Your task to perform on an android device: set default search engine in the chrome app Image 0: 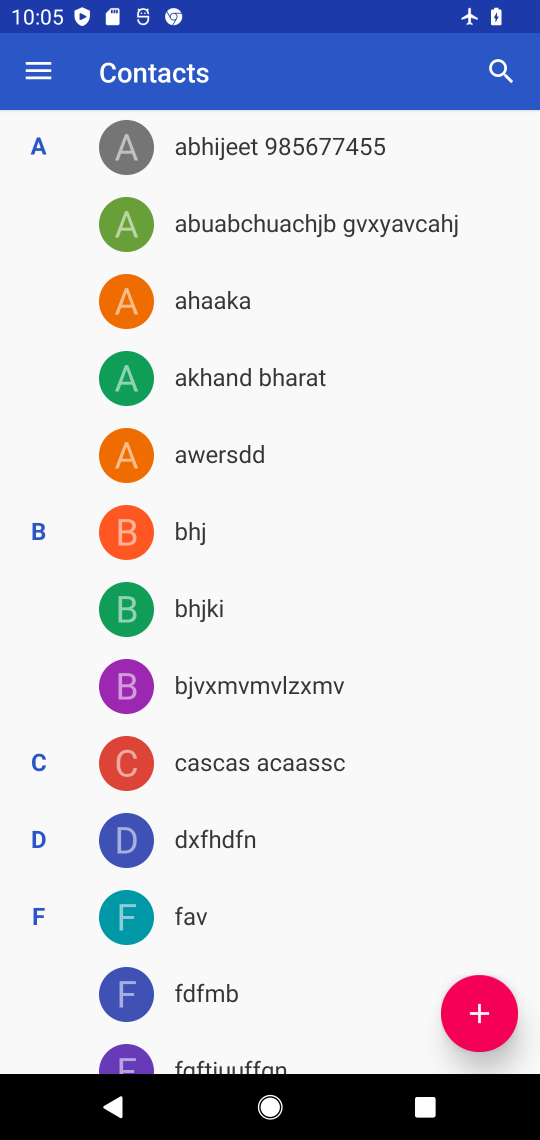
Step 0: press home button
Your task to perform on an android device: set default search engine in the chrome app Image 1: 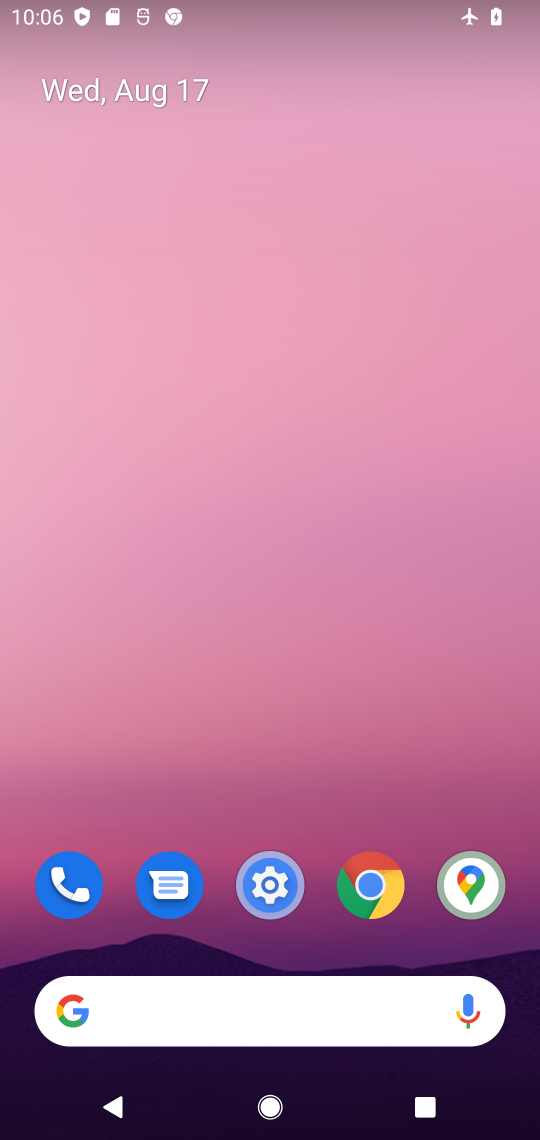
Step 1: click (370, 886)
Your task to perform on an android device: set default search engine in the chrome app Image 2: 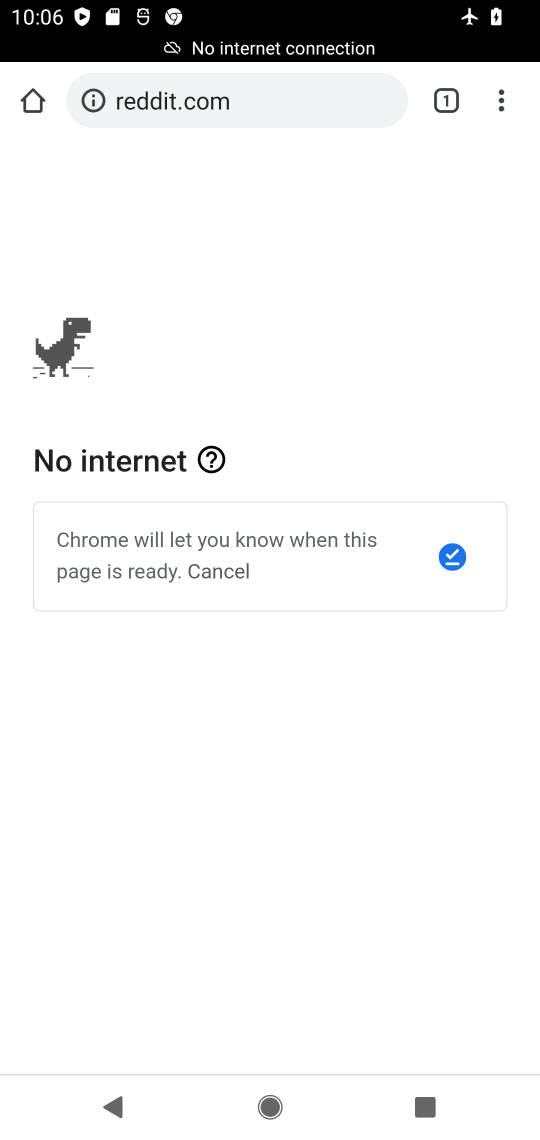
Step 2: click (493, 109)
Your task to perform on an android device: set default search engine in the chrome app Image 3: 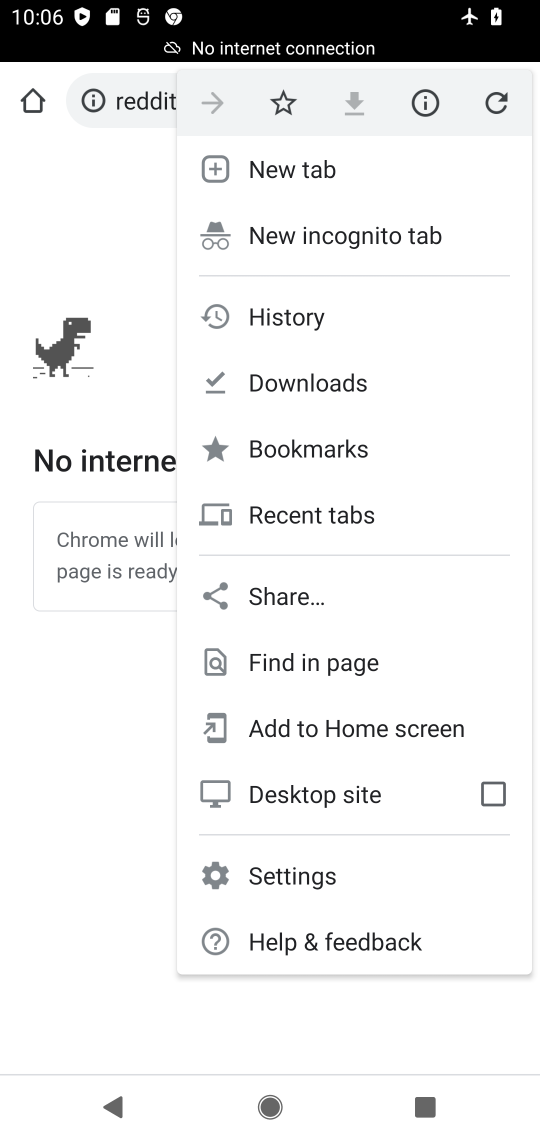
Step 3: click (300, 868)
Your task to perform on an android device: set default search engine in the chrome app Image 4: 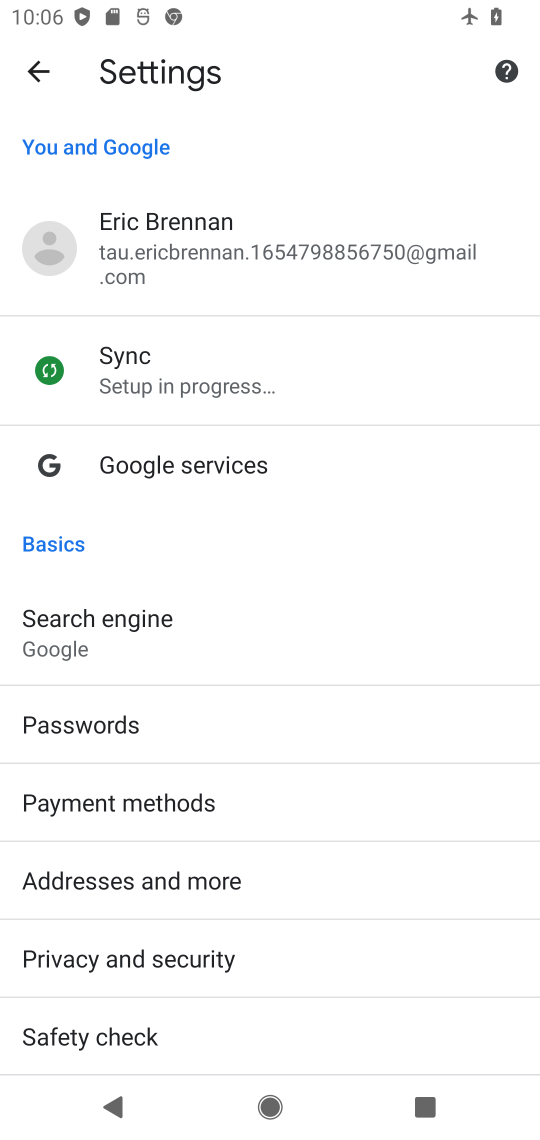
Step 4: click (98, 612)
Your task to perform on an android device: set default search engine in the chrome app Image 5: 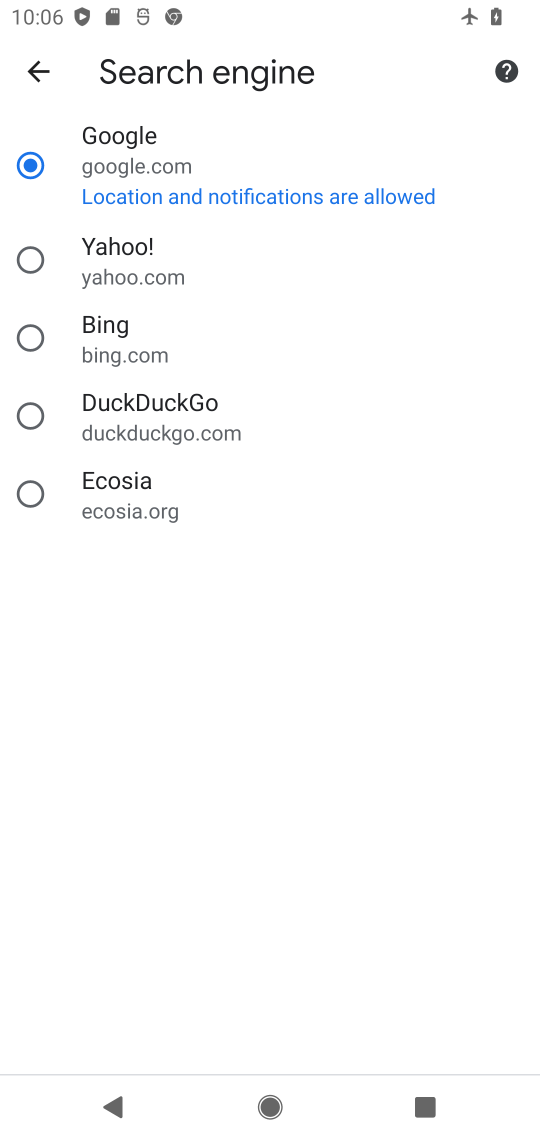
Step 5: click (37, 254)
Your task to perform on an android device: set default search engine in the chrome app Image 6: 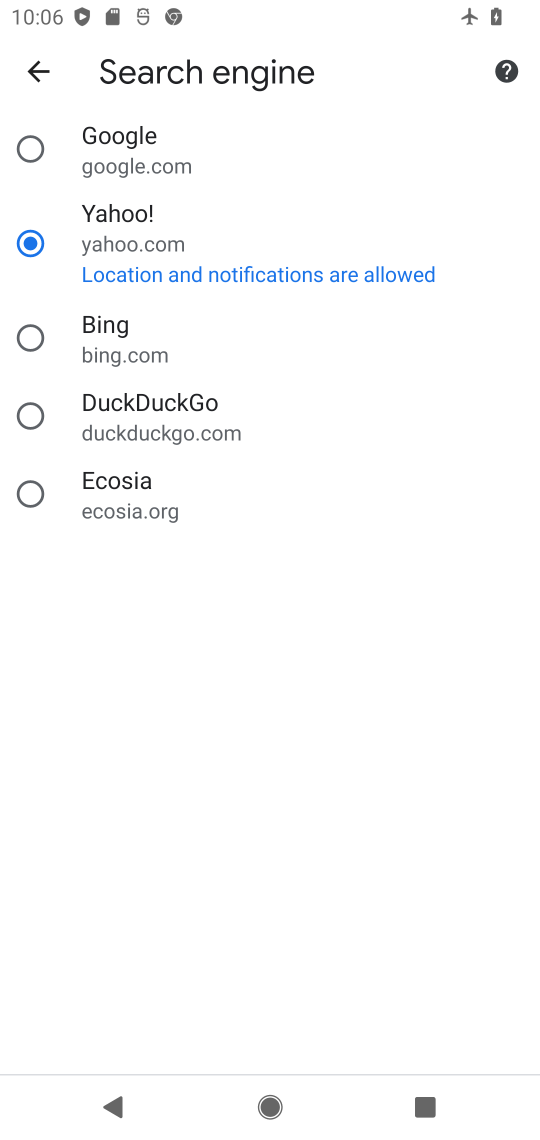
Step 6: task complete